Your task to perform on an android device: change alarm snooze length Image 0: 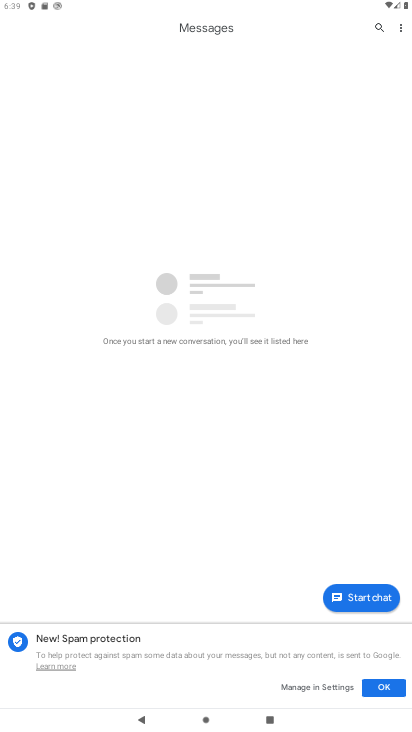
Step 0: press home button
Your task to perform on an android device: change alarm snooze length Image 1: 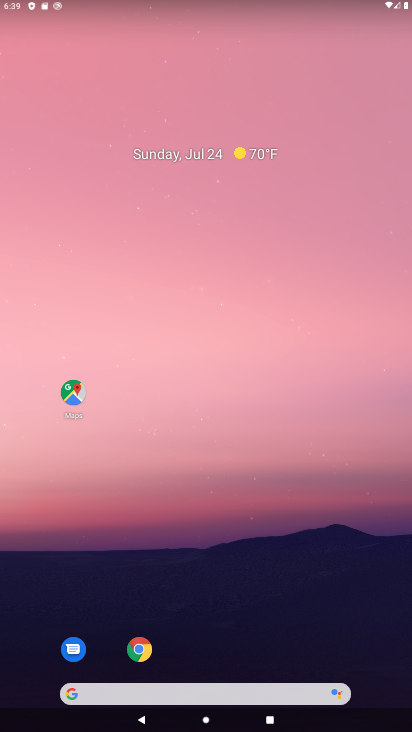
Step 1: drag from (232, 550) to (185, 18)
Your task to perform on an android device: change alarm snooze length Image 2: 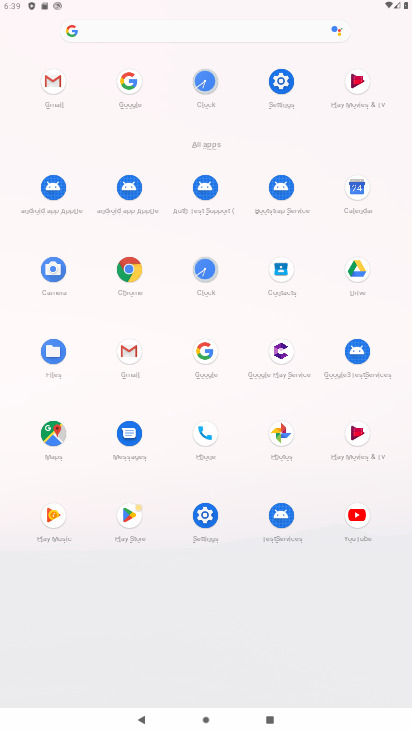
Step 2: click (200, 277)
Your task to perform on an android device: change alarm snooze length Image 3: 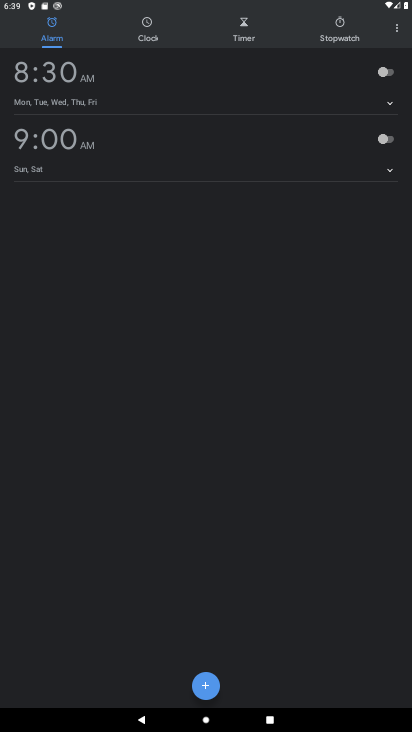
Step 3: click (396, 30)
Your task to perform on an android device: change alarm snooze length Image 4: 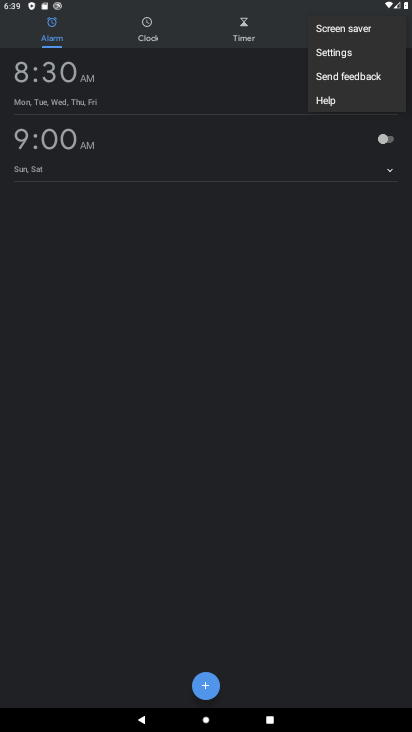
Step 4: click (348, 49)
Your task to perform on an android device: change alarm snooze length Image 5: 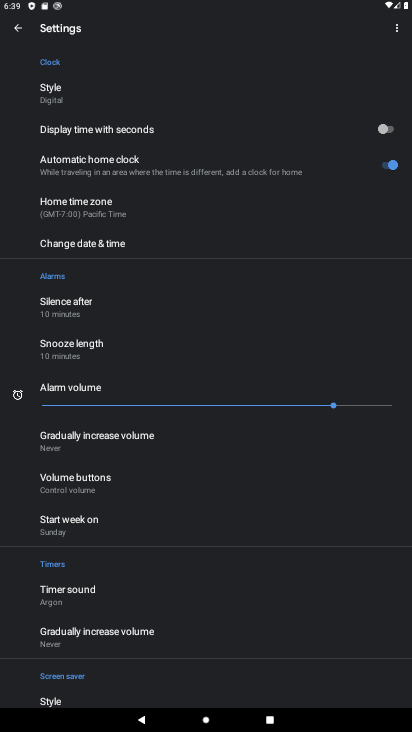
Step 5: click (77, 346)
Your task to perform on an android device: change alarm snooze length Image 6: 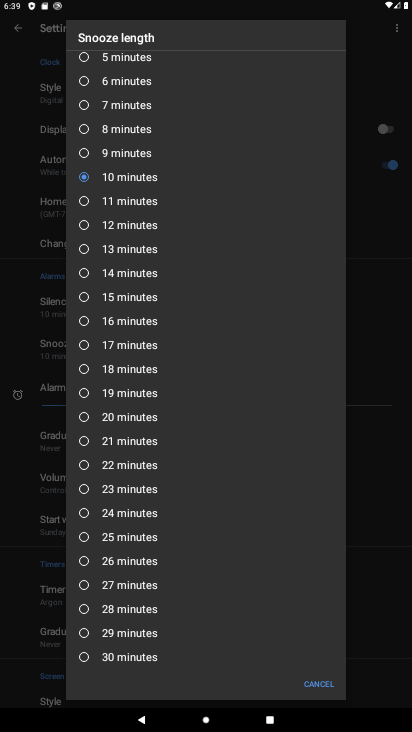
Step 6: click (84, 203)
Your task to perform on an android device: change alarm snooze length Image 7: 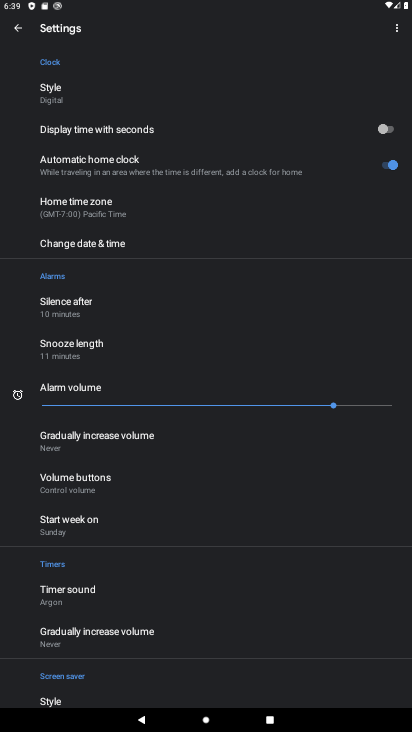
Step 7: task complete